Your task to perform on an android device: toggle improve location accuracy Image 0: 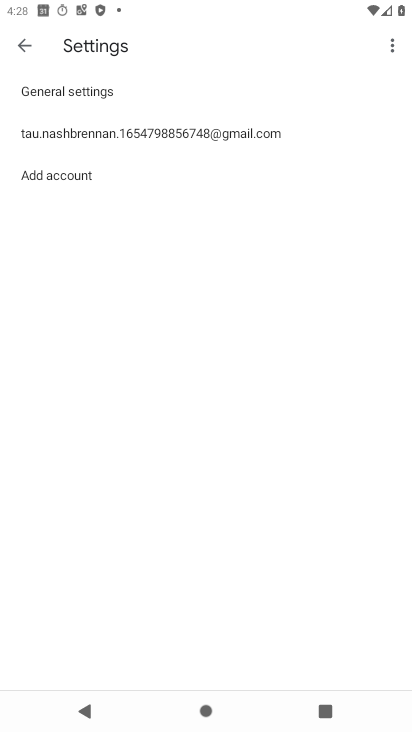
Step 0: press home button
Your task to perform on an android device: toggle improve location accuracy Image 1: 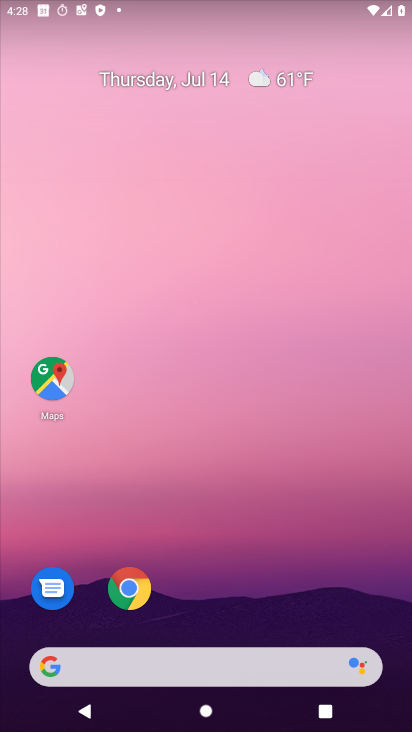
Step 1: drag from (193, 665) to (249, 142)
Your task to perform on an android device: toggle improve location accuracy Image 2: 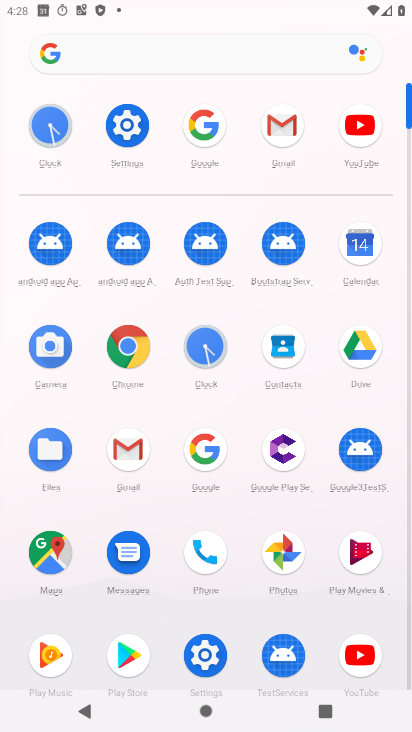
Step 2: click (127, 124)
Your task to perform on an android device: toggle improve location accuracy Image 3: 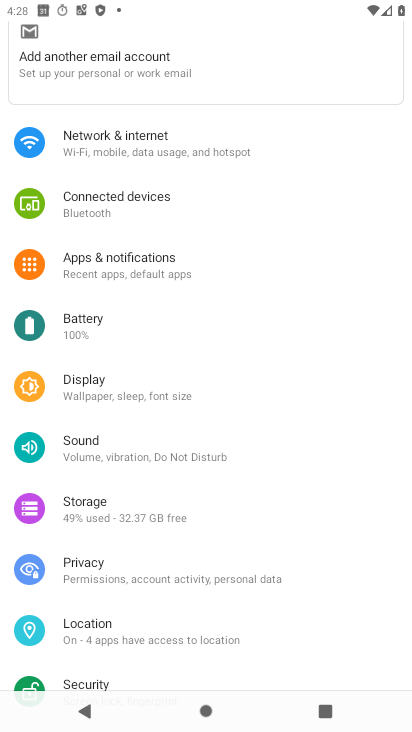
Step 3: click (99, 636)
Your task to perform on an android device: toggle improve location accuracy Image 4: 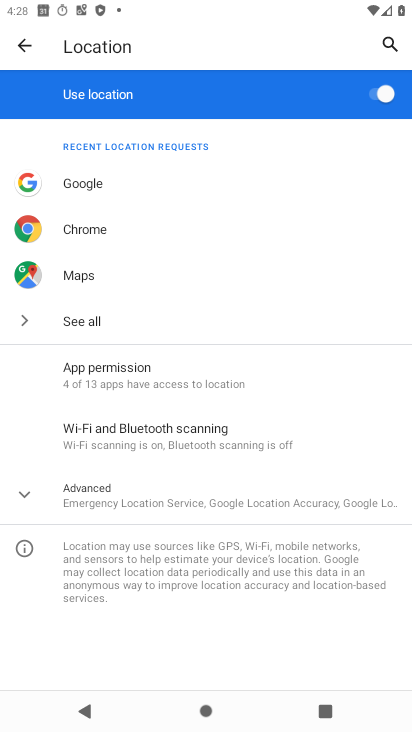
Step 4: click (176, 498)
Your task to perform on an android device: toggle improve location accuracy Image 5: 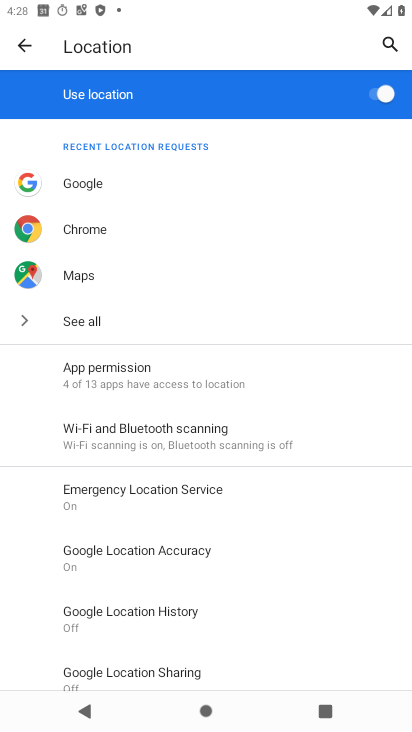
Step 5: click (174, 546)
Your task to perform on an android device: toggle improve location accuracy Image 6: 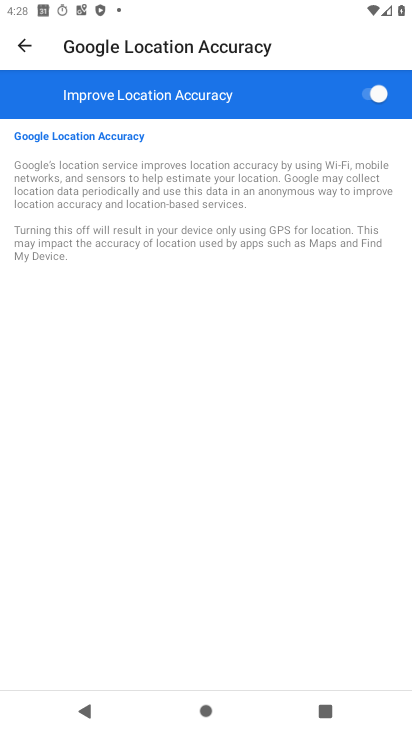
Step 6: click (379, 93)
Your task to perform on an android device: toggle improve location accuracy Image 7: 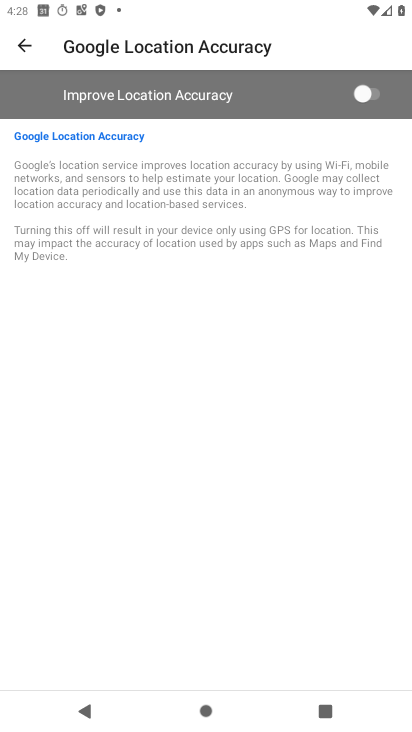
Step 7: task complete